Your task to perform on an android device: Open the calendar app, open the side menu, and click the "Day" option Image 0: 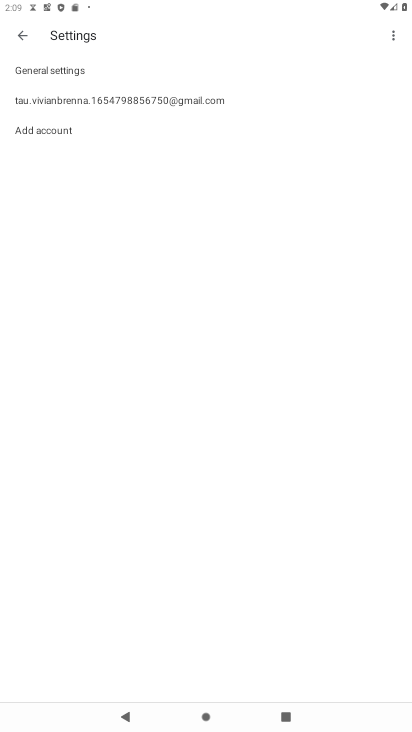
Step 0: press home button
Your task to perform on an android device: Open the calendar app, open the side menu, and click the "Day" option Image 1: 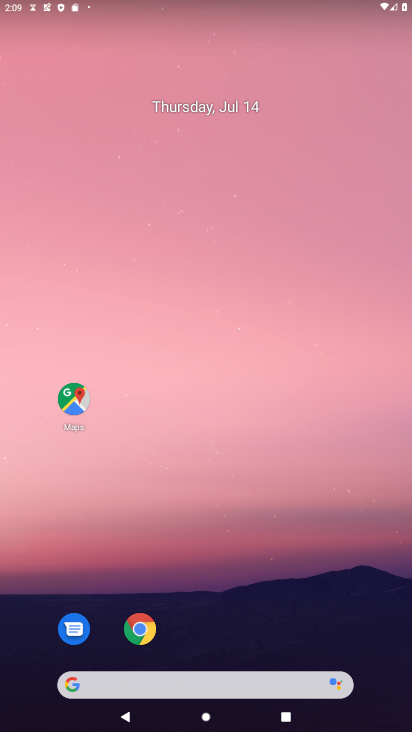
Step 1: drag from (212, 589) to (177, 40)
Your task to perform on an android device: Open the calendar app, open the side menu, and click the "Day" option Image 2: 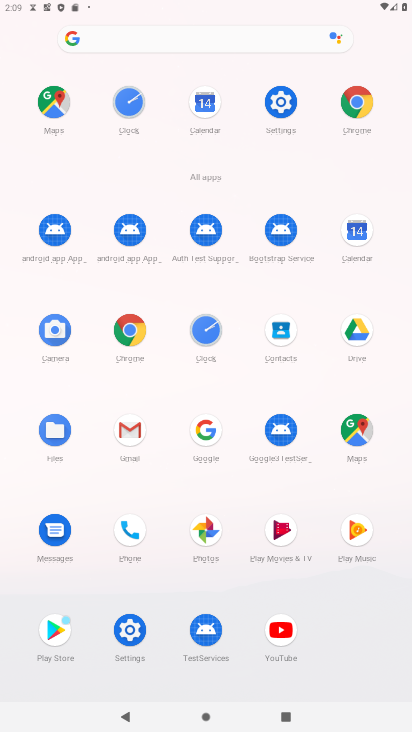
Step 2: click (352, 236)
Your task to perform on an android device: Open the calendar app, open the side menu, and click the "Day" option Image 3: 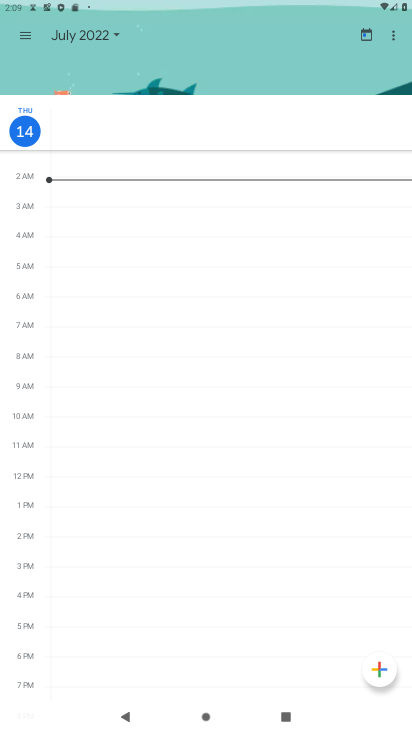
Step 3: click (32, 38)
Your task to perform on an android device: Open the calendar app, open the side menu, and click the "Day" option Image 4: 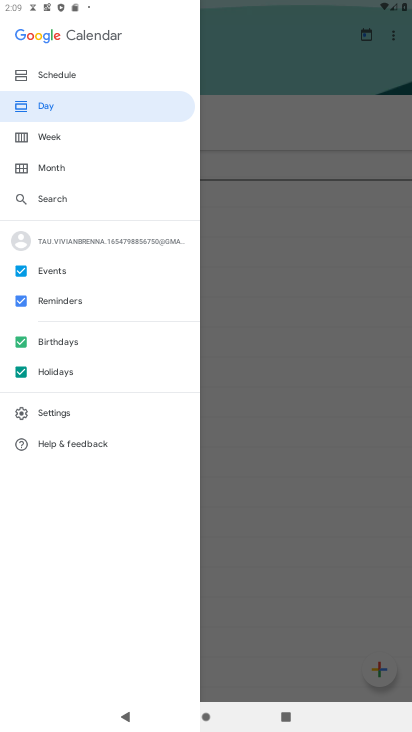
Step 4: click (122, 110)
Your task to perform on an android device: Open the calendar app, open the side menu, and click the "Day" option Image 5: 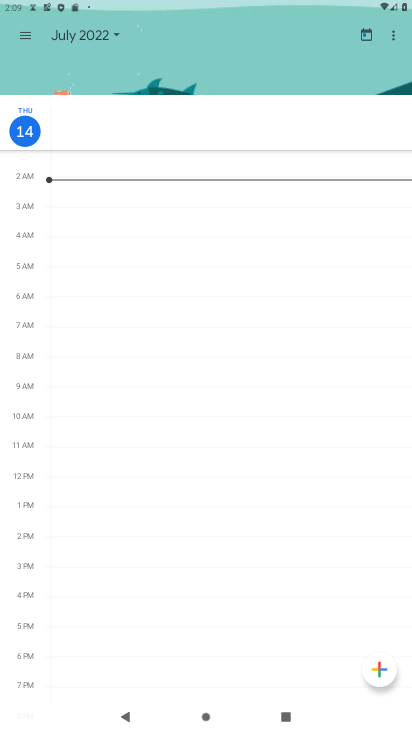
Step 5: task complete